Your task to perform on an android device: turn off sleep mode Image 0: 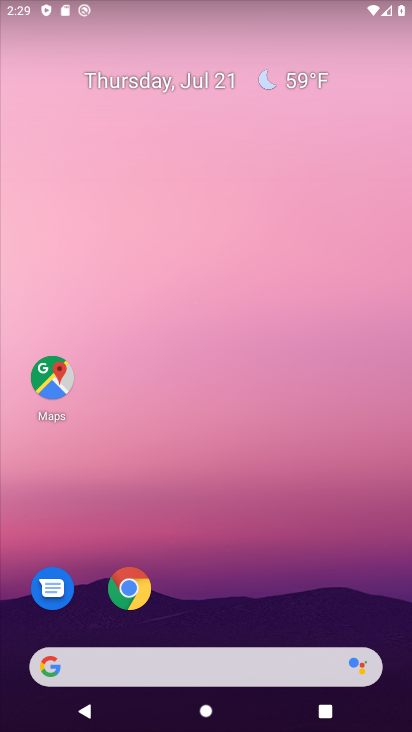
Step 0: drag from (400, 693) to (348, 11)
Your task to perform on an android device: turn off sleep mode Image 1: 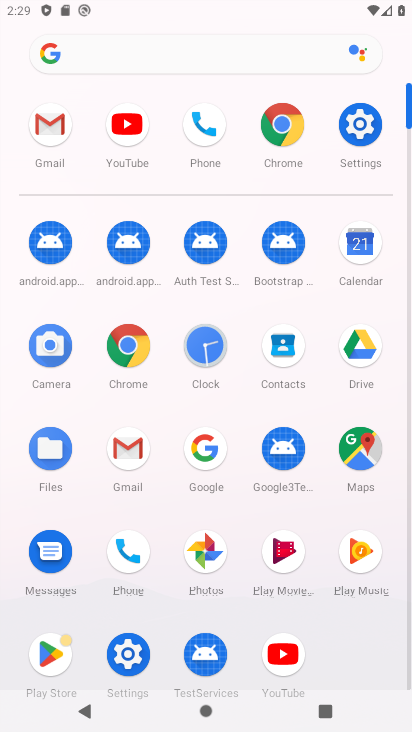
Step 1: click (368, 127)
Your task to perform on an android device: turn off sleep mode Image 2: 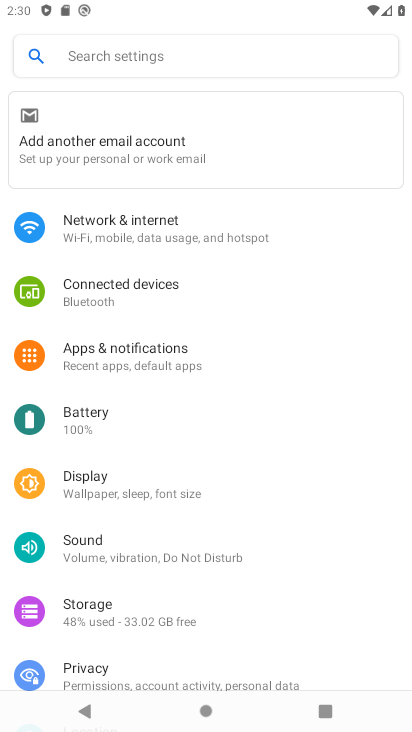
Step 2: click (112, 481)
Your task to perform on an android device: turn off sleep mode Image 3: 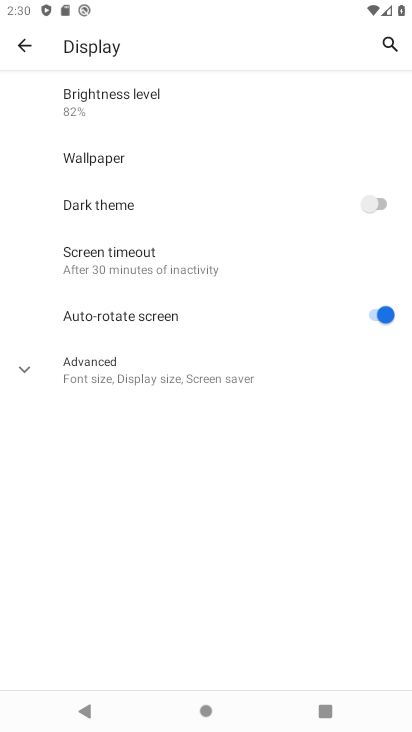
Step 3: click (116, 264)
Your task to perform on an android device: turn off sleep mode Image 4: 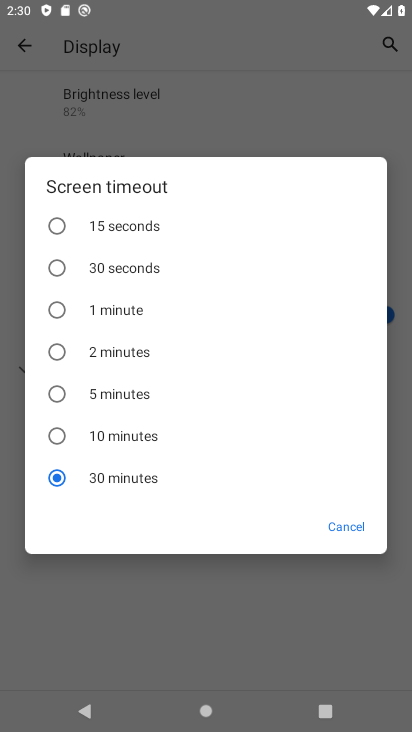
Step 4: task complete